Your task to perform on an android device: toggle javascript in the chrome app Image 0: 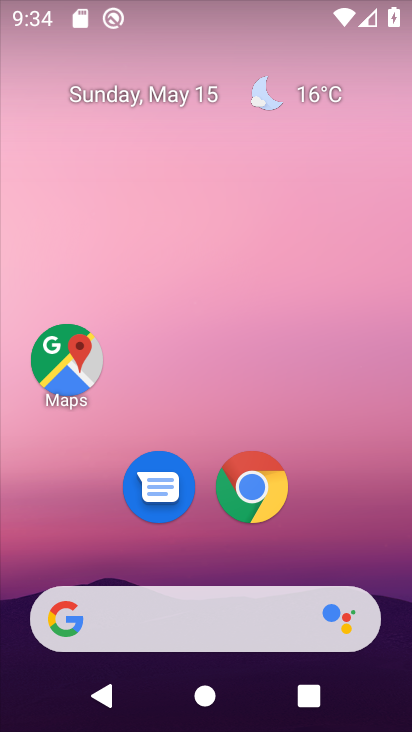
Step 0: drag from (363, 473) to (354, 61)
Your task to perform on an android device: toggle javascript in the chrome app Image 1: 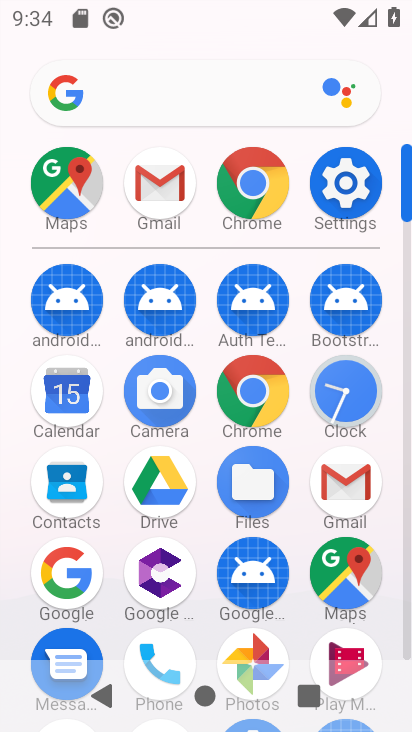
Step 1: click (264, 403)
Your task to perform on an android device: toggle javascript in the chrome app Image 2: 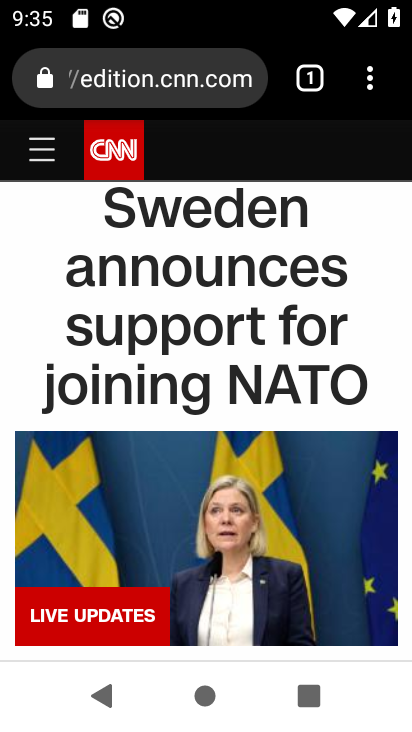
Step 2: click (183, 73)
Your task to perform on an android device: toggle javascript in the chrome app Image 3: 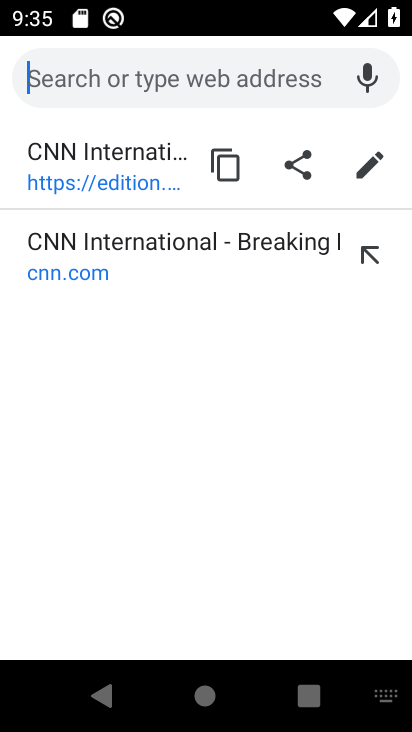
Step 3: click (89, 703)
Your task to perform on an android device: toggle javascript in the chrome app Image 4: 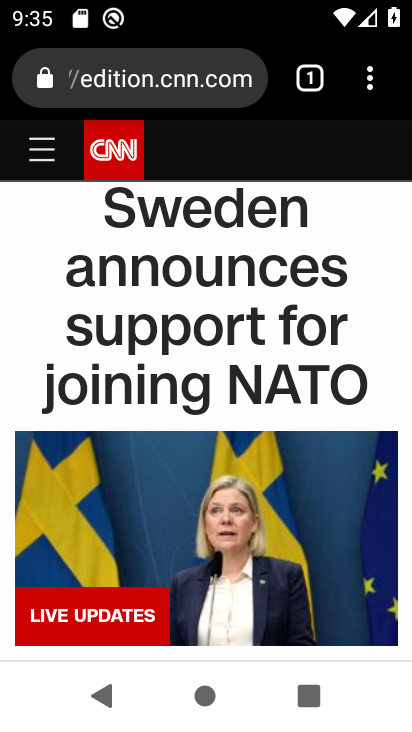
Step 4: drag from (363, 88) to (218, 555)
Your task to perform on an android device: toggle javascript in the chrome app Image 5: 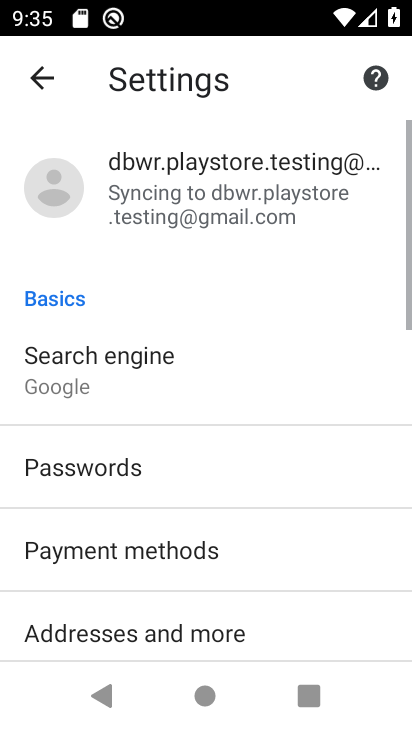
Step 5: drag from (262, 594) to (282, 339)
Your task to perform on an android device: toggle javascript in the chrome app Image 6: 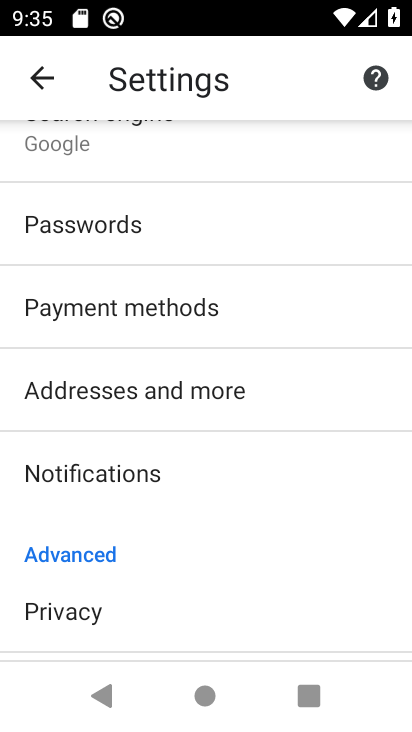
Step 6: drag from (289, 541) to (290, 277)
Your task to perform on an android device: toggle javascript in the chrome app Image 7: 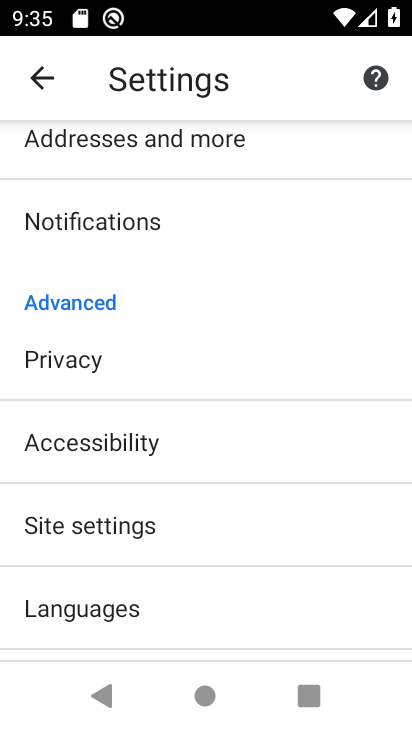
Step 7: drag from (300, 465) to (323, 299)
Your task to perform on an android device: toggle javascript in the chrome app Image 8: 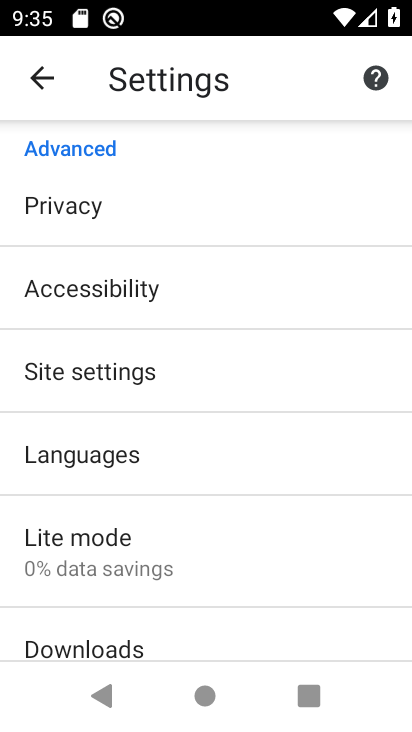
Step 8: click (204, 367)
Your task to perform on an android device: toggle javascript in the chrome app Image 9: 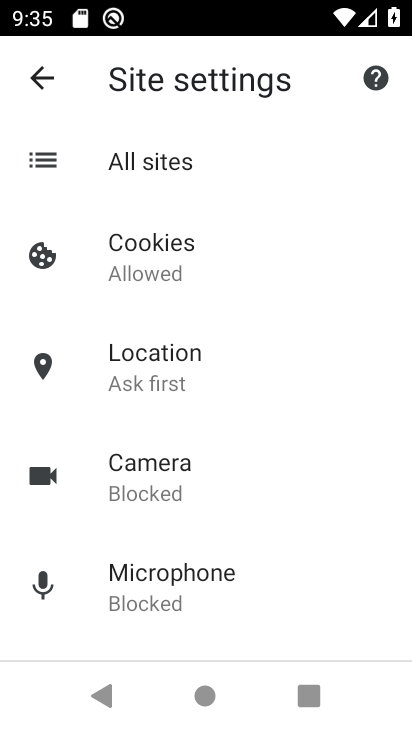
Step 9: drag from (246, 596) to (255, 308)
Your task to perform on an android device: toggle javascript in the chrome app Image 10: 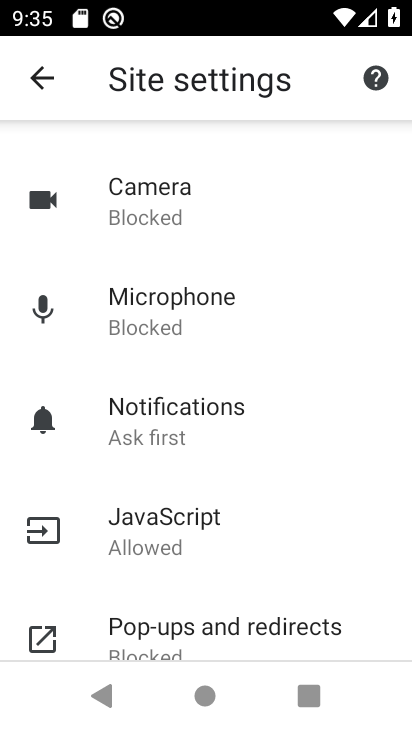
Step 10: click (230, 521)
Your task to perform on an android device: toggle javascript in the chrome app Image 11: 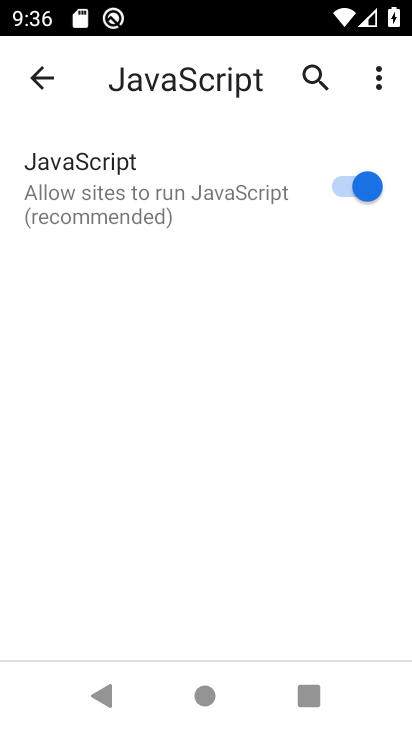
Step 11: click (343, 195)
Your task to perform on an android device: toggle javascript in the chrome app Image 12: 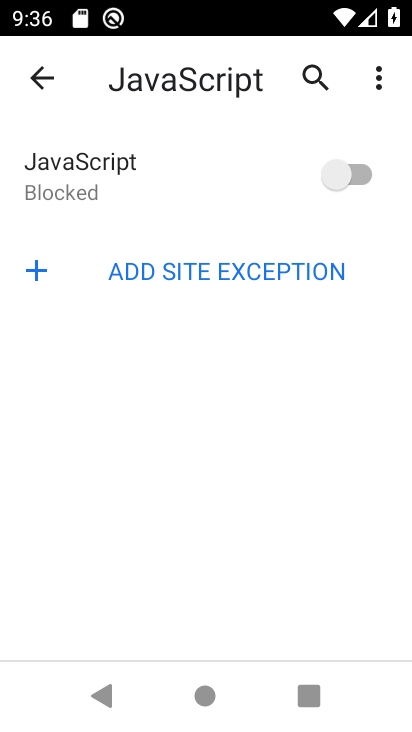
Step 12: task complete